Your task to perform on an android device: Search for bose quietcomfort 35 on target, select the first entry, add it to the cart, then select checkout. Image 0: 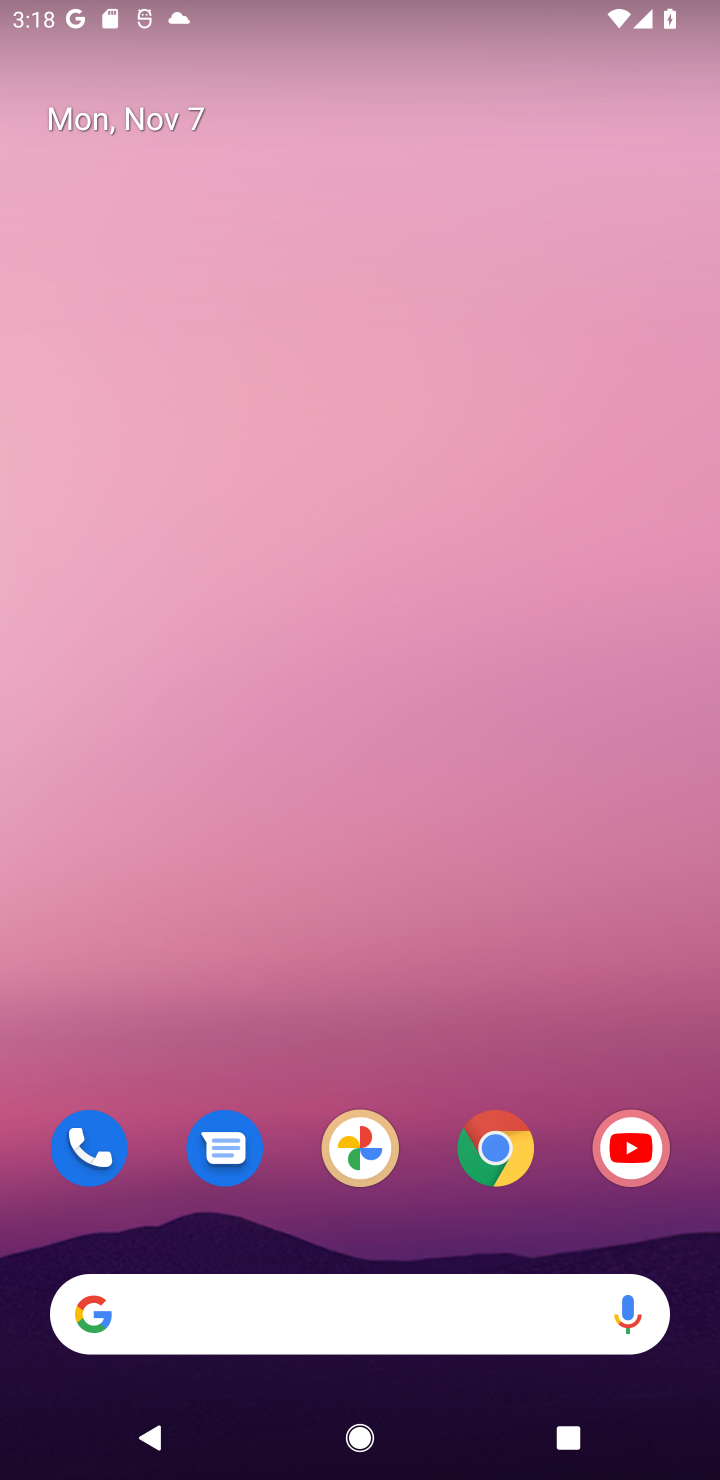
Step 0: drag from (528, 1206) to (489, 144)
Your task to perform on an android device: Search for bose quietcomfort 35 on target, select the first entry, add it to the cart, then select checkout. Image 1: 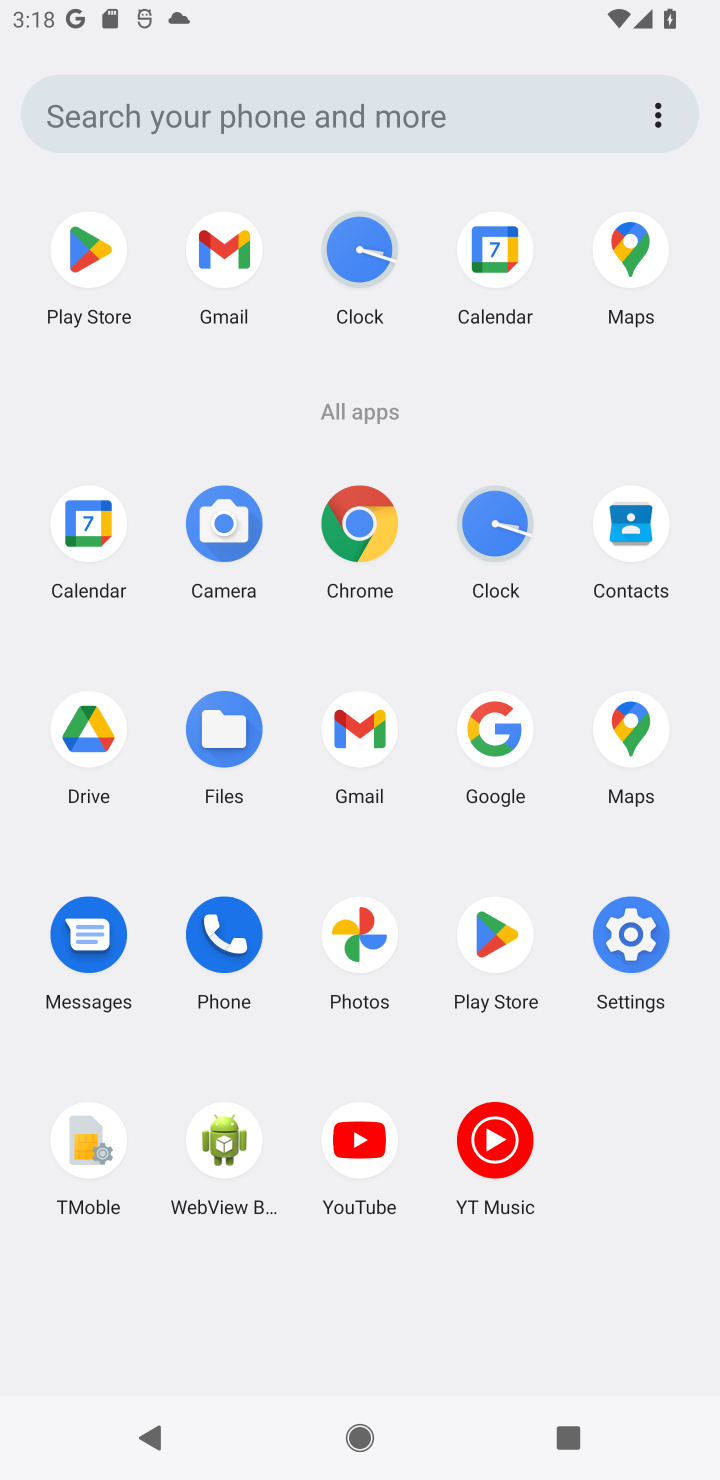
Step 1: click (375, 506)
Your task to perform on an android device: Search for bose quietcomfort 35 on target, select the first entry, add it to the cart, then select checkout. Image 2: 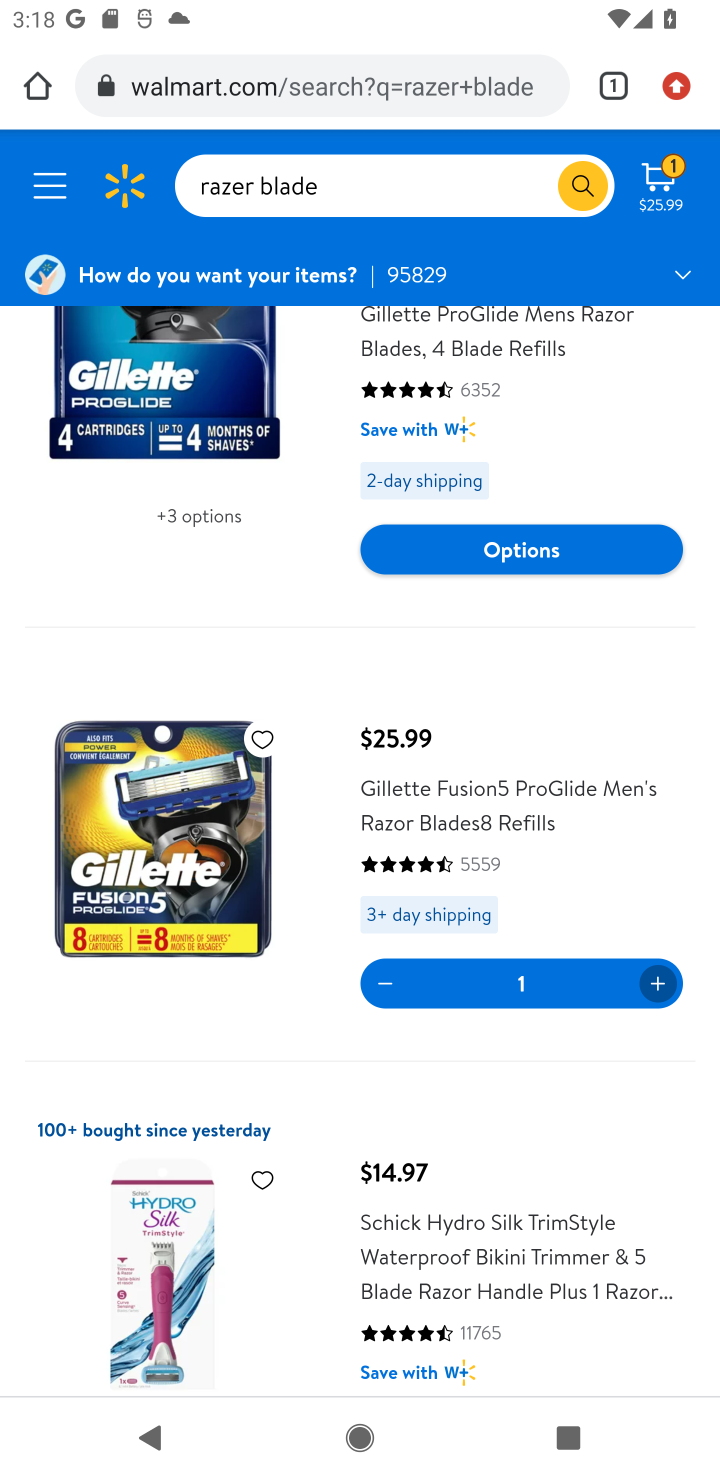
Step 2: click (339, 69)
Your task to perform on an android device: Search for bose quietcomfort 35 on target, select the first entry, add it to the cart, then select checkout. Image 3: 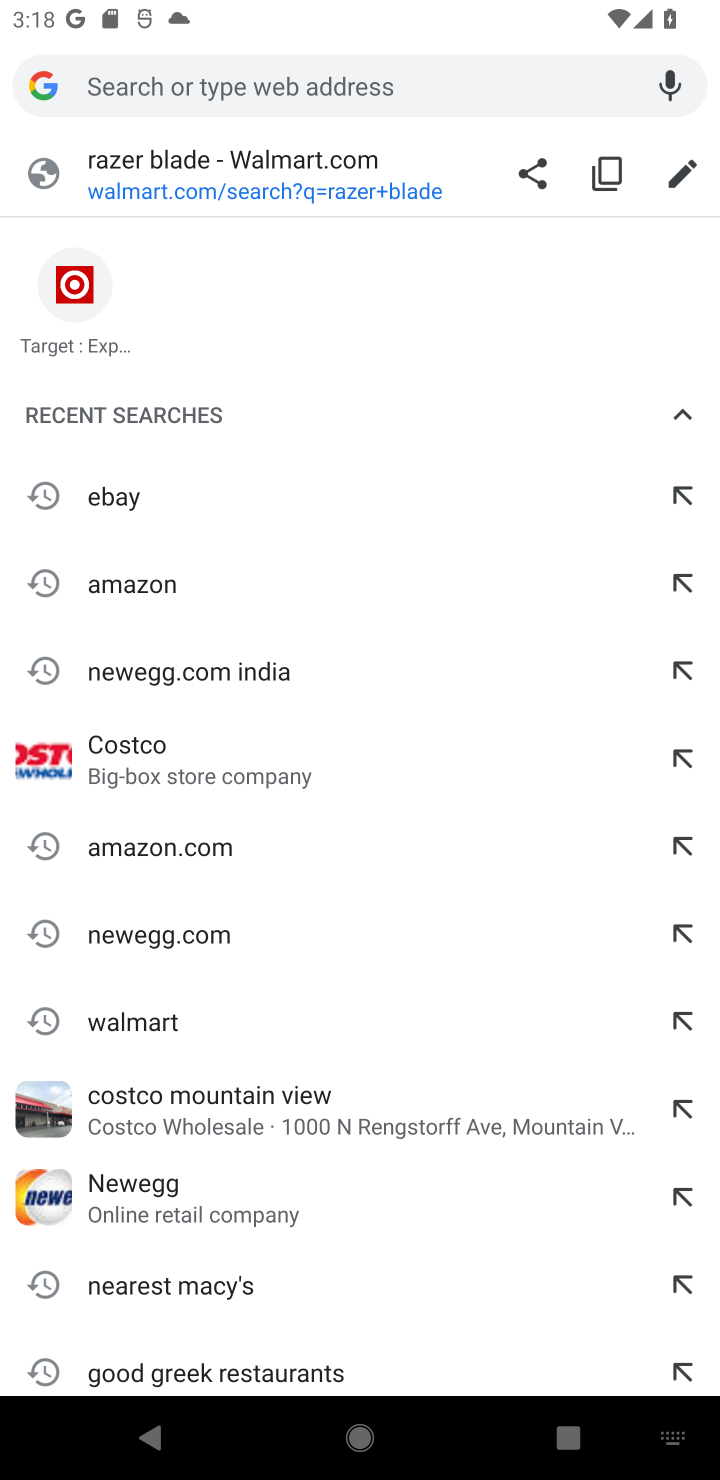
Step 3: type "target"
Your task to perform on an android device: Search for bose quietcomfort 35 on target, select the first entry, add it to the cart, then select checkout. Image 4: 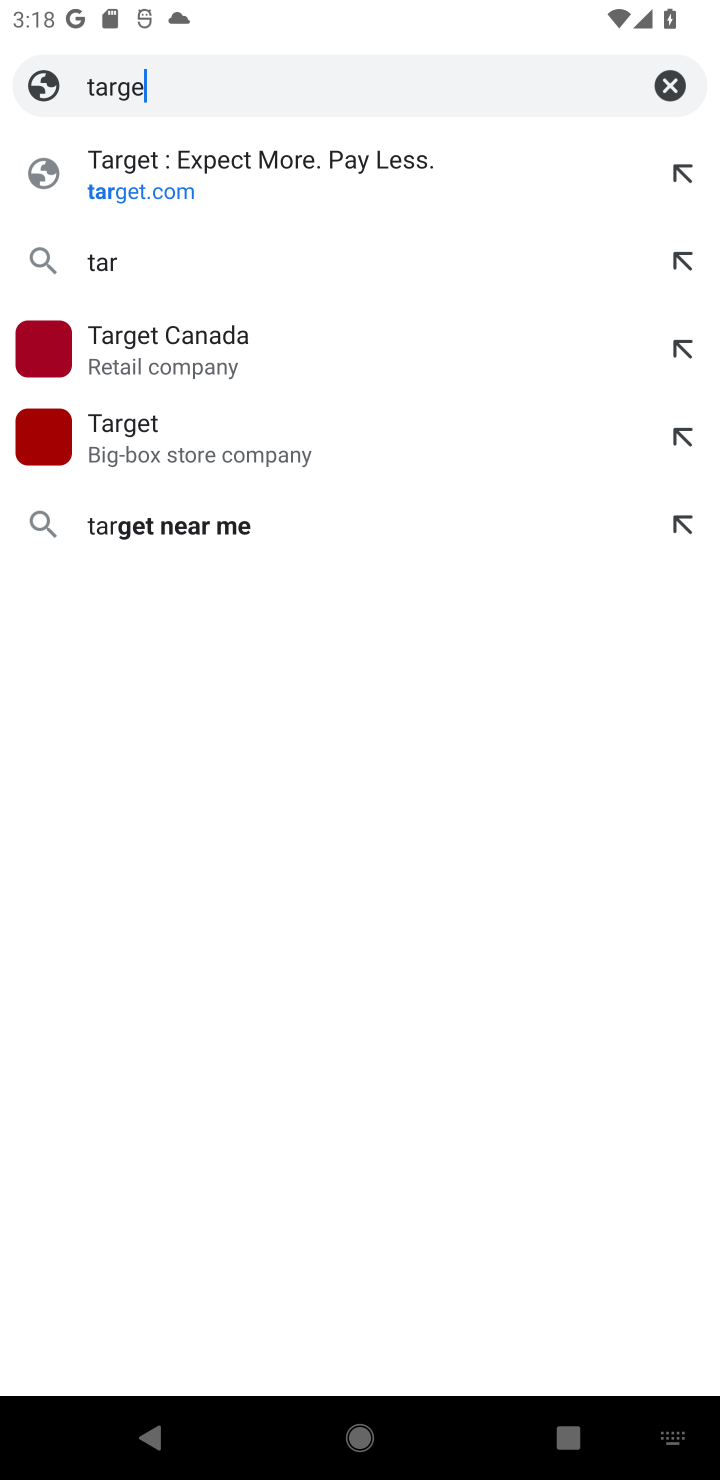
Step 4: press enter
Your task to perform on an android device: Search for bose quietcomfort 35 on target, select the first entry, add it to the cart, then select checkout. Image 5: 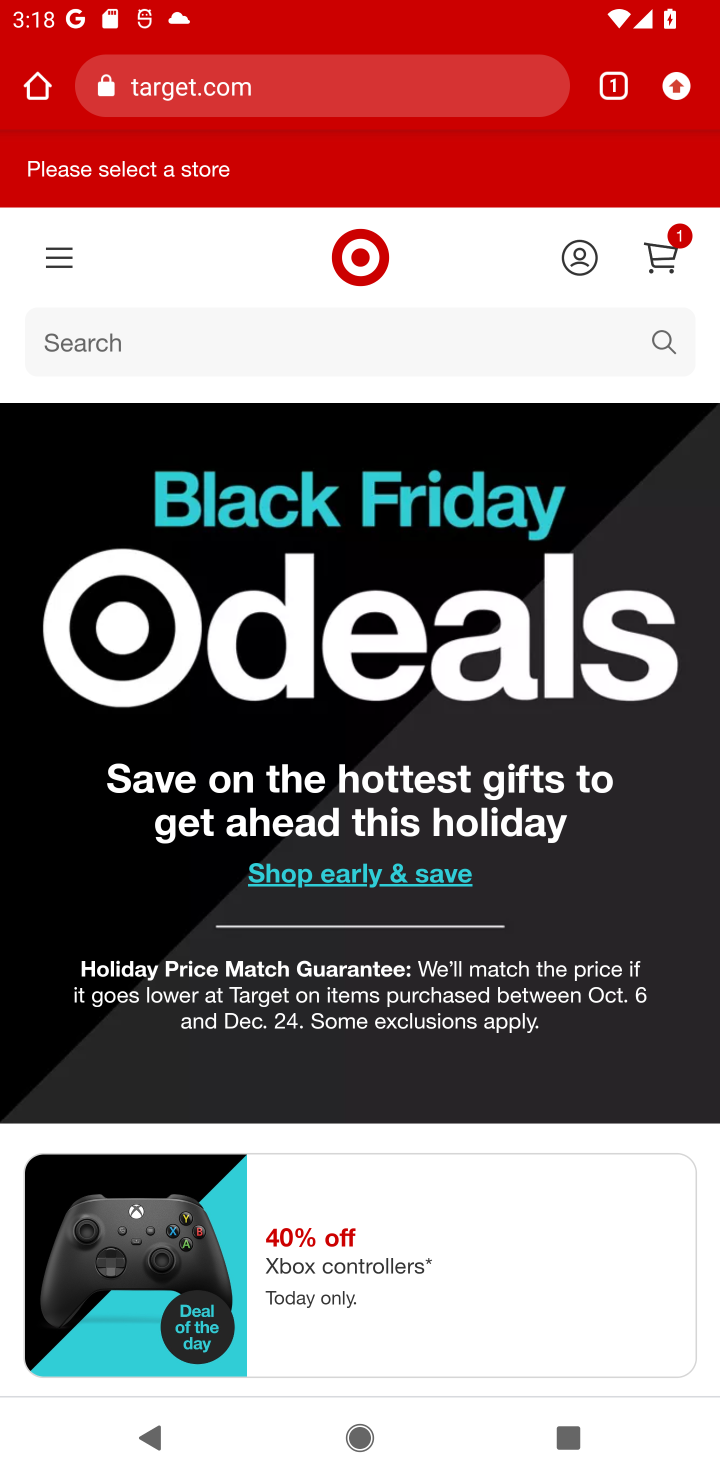
Step 5: click (195, 338)
Your task to perform on an android device: Search for bose quietcomfort 35 on target, select the first entry, add it to the cart, then select checkout. Image 6: 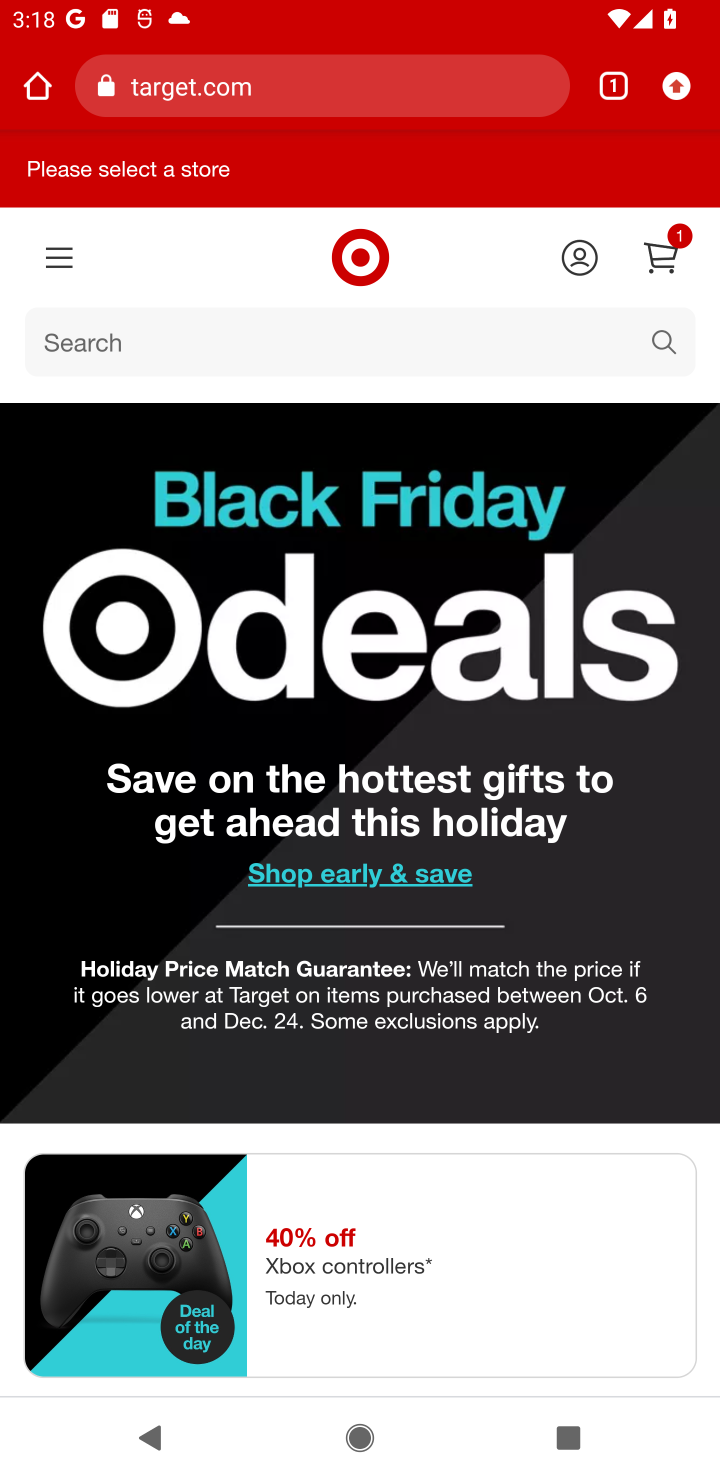
Step 6: click (219, 336)
Your task to perform on an android device: Search for bose quietcomfort 35 on target, select the first entry, add it to the cart, then select checkout. Image 7: 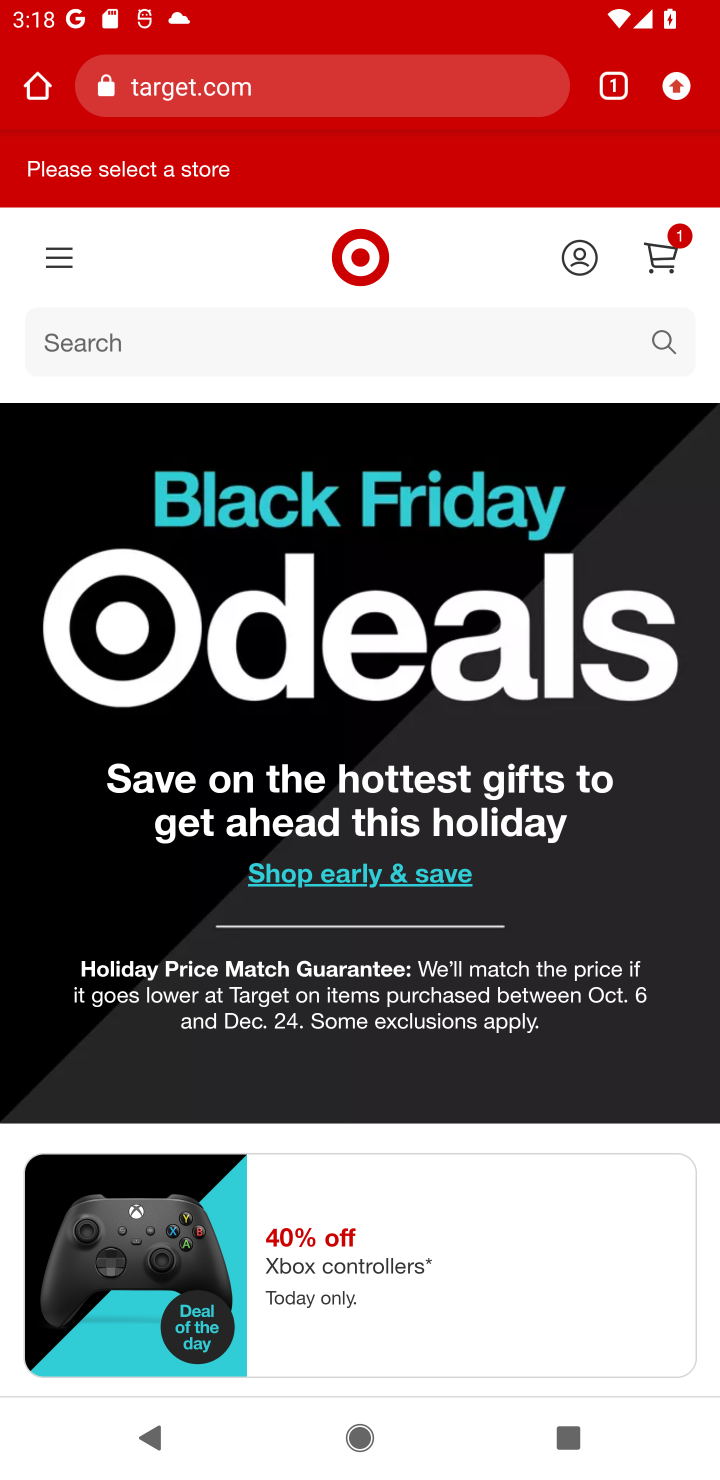
Step 7: click (454, 376)
Your task to perform on an android device: Search for bose quietcomfort 35 on target, select the first entry, add it to the cart, then select checkout. Image 8: 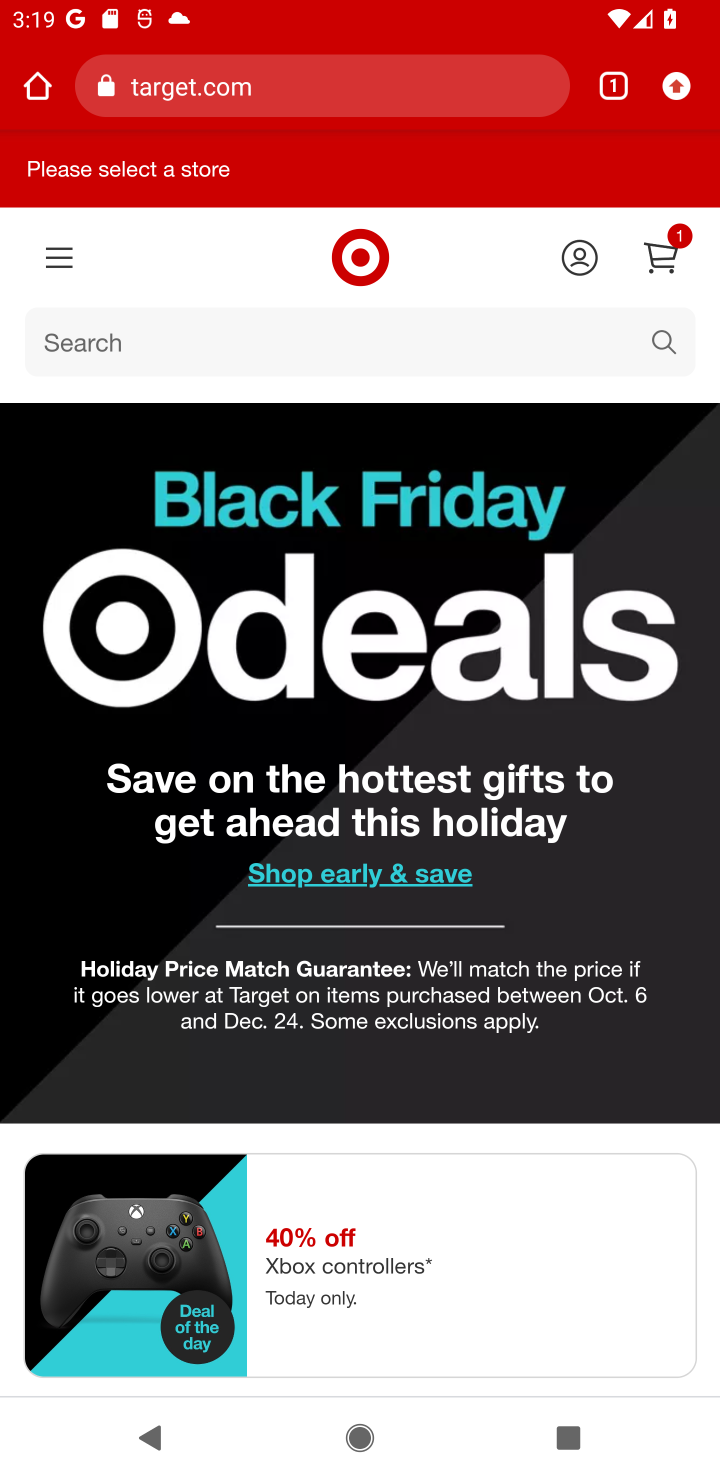
Step 8: click (654, 347)
Your task to perform on an android device: Search for bose quietcomfort 35 on target, select the first entry, add it to the cart, then select checkout. Image 9: 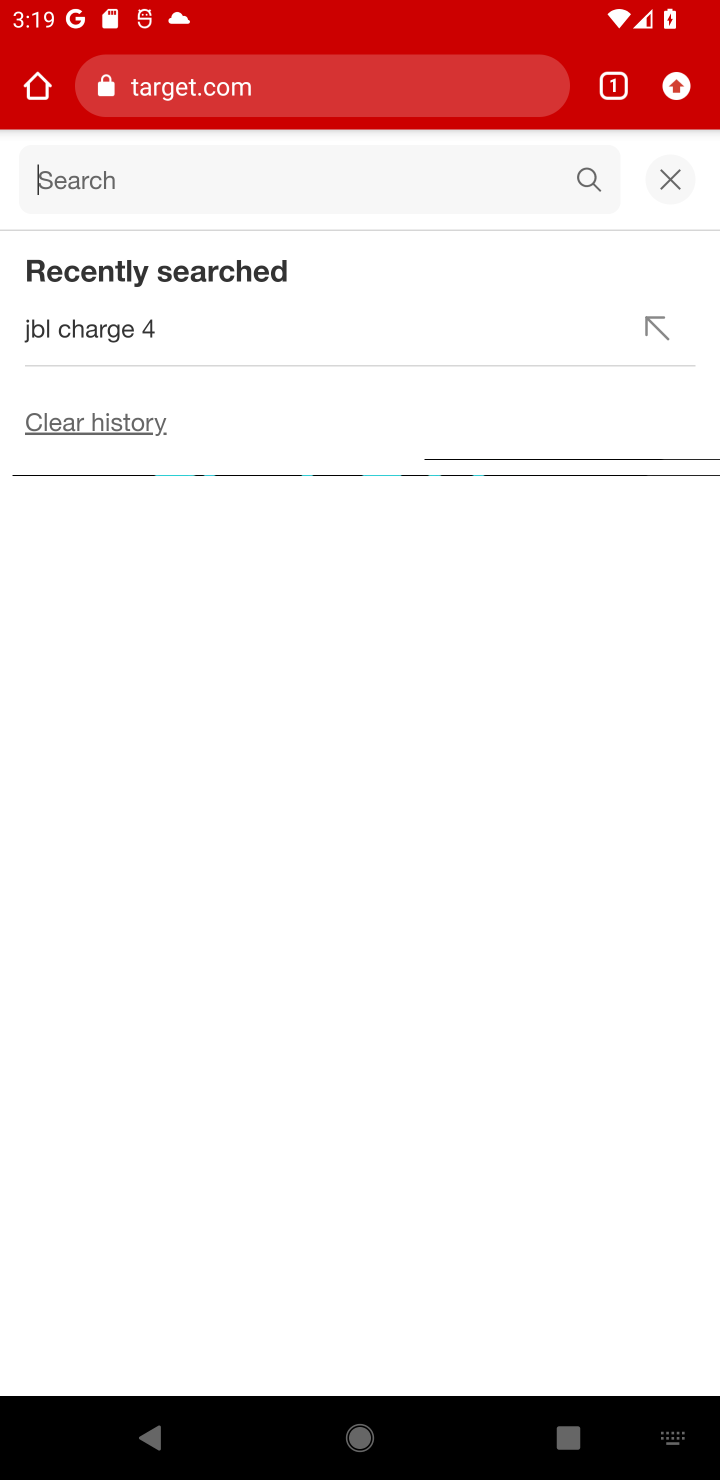
Step 9: type "bose quietcomfort 35"
Your task to perform on an android device: Search for bose quietcomfort 35 on target, select the first entry, add it to the cart, then select checkout. Image 10: 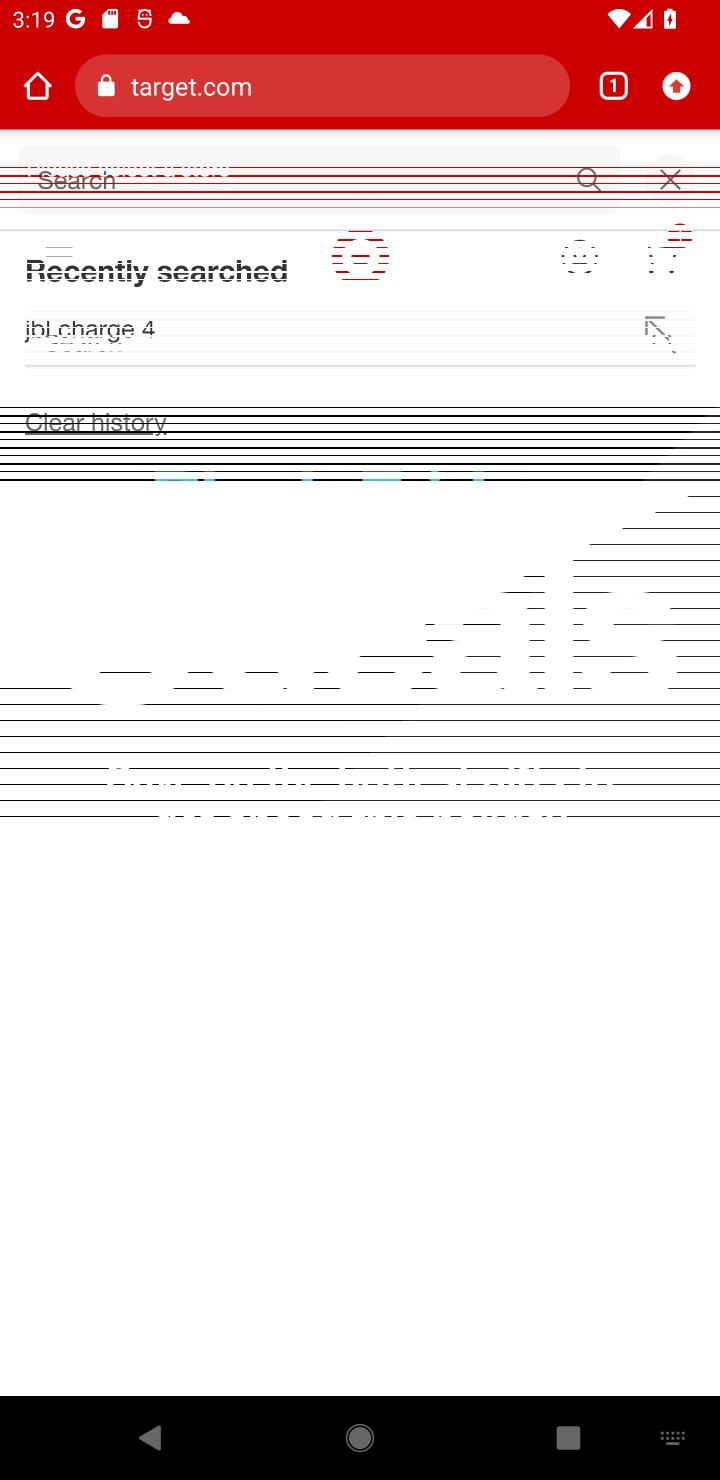
Step 10: press enter
Your task to perform on an android device: Search for bose quietcomfort 35 on target, select the first entry, add it to the cart, then select checkout. Image 11: 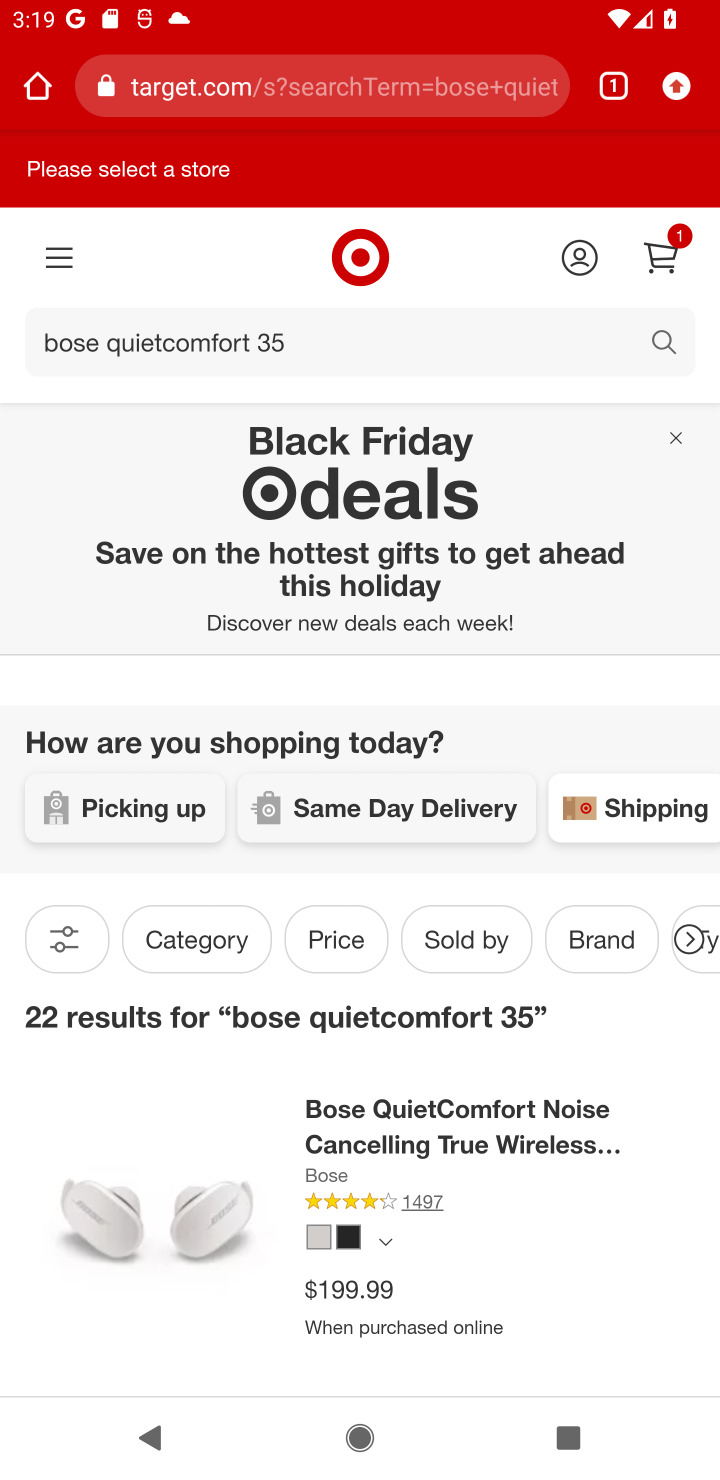
Step 11: drag from (452, 845) to (478, 624)
Your task to perform on an android device: Search for bose quietcomfort 35 on target, select the first entry, add it to the cart, then select checkout. Image 12: 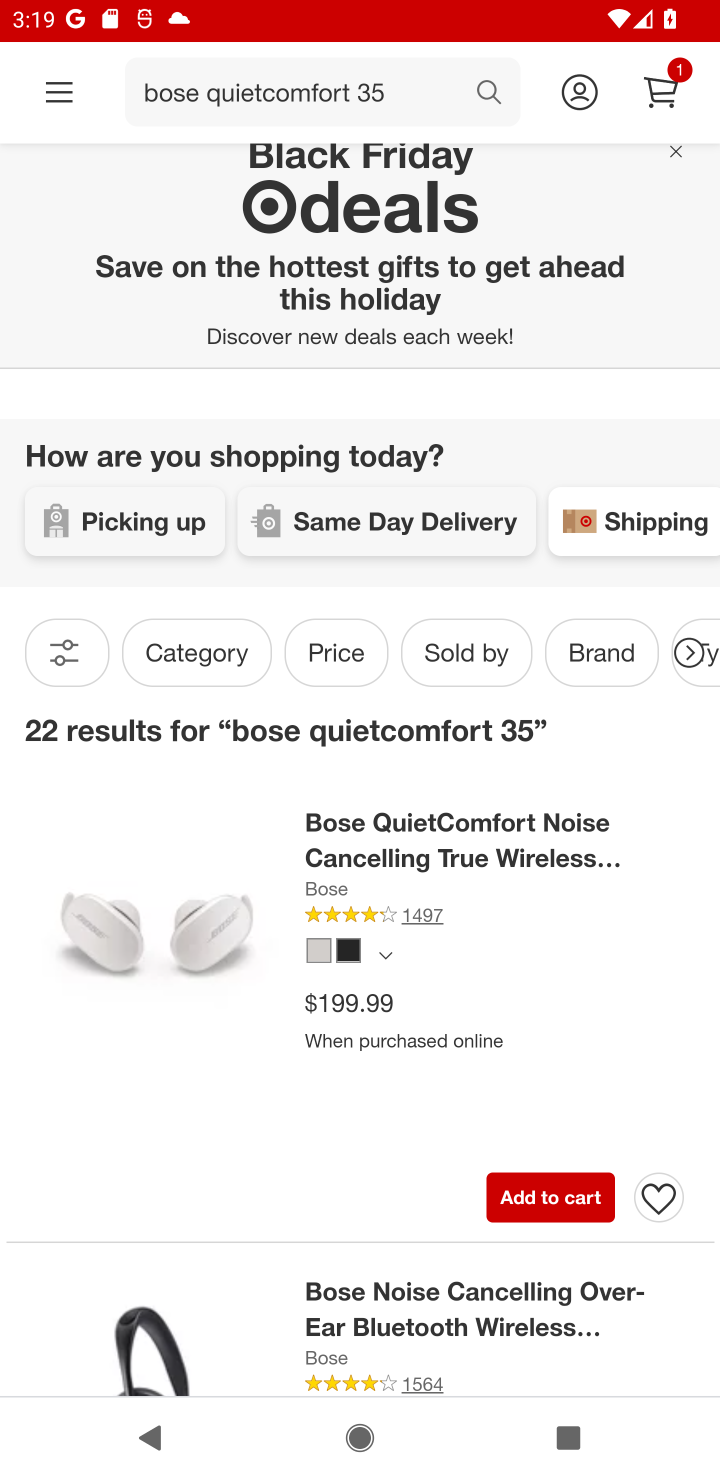
Step 12: click (541, 1198)
Your task to perform on an android device: Search for bose quietcomfort 35 on target, select the first entry, add it to the cart, then select checkout. Image 13: 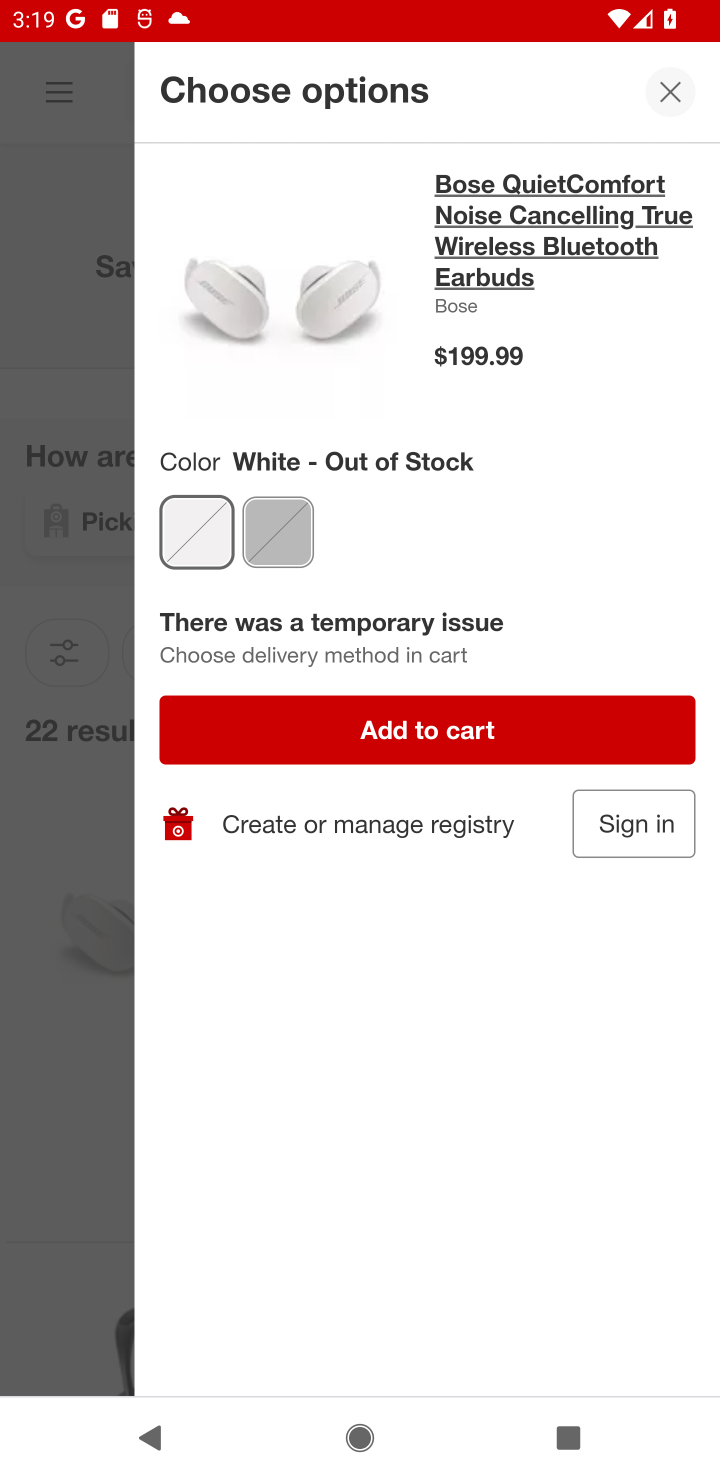
Step 13: click (404, 738)
Your task to perform on an android device: Search for bose quietcomfort 35 on target, select the first entry, add it to the cart, then select checkout. Image 14: 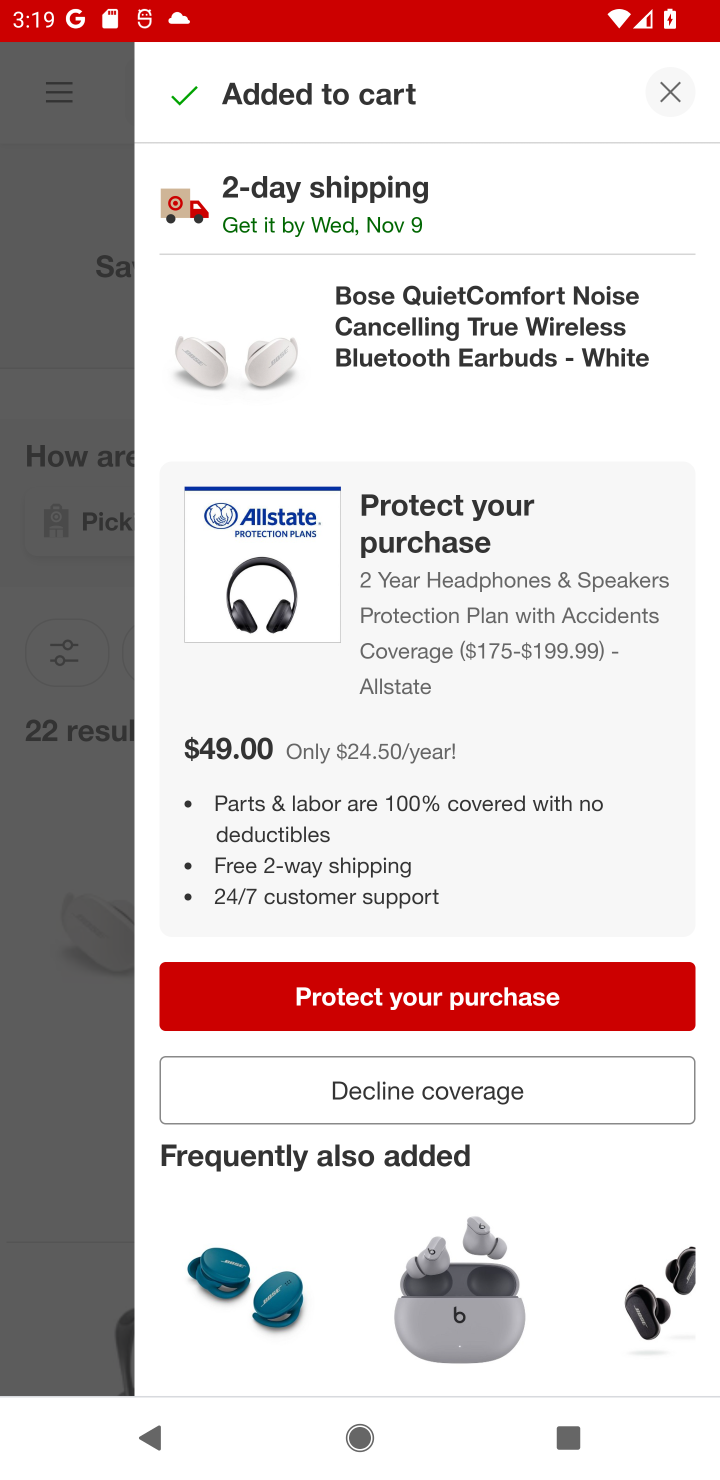
Step 14: drag from (532, 1119) to (509, 491)
Your task to perform on an android device: Search for bose quietcomfort 35 on target, select the first entry, add it to the cart, then select checkout. Image 15: 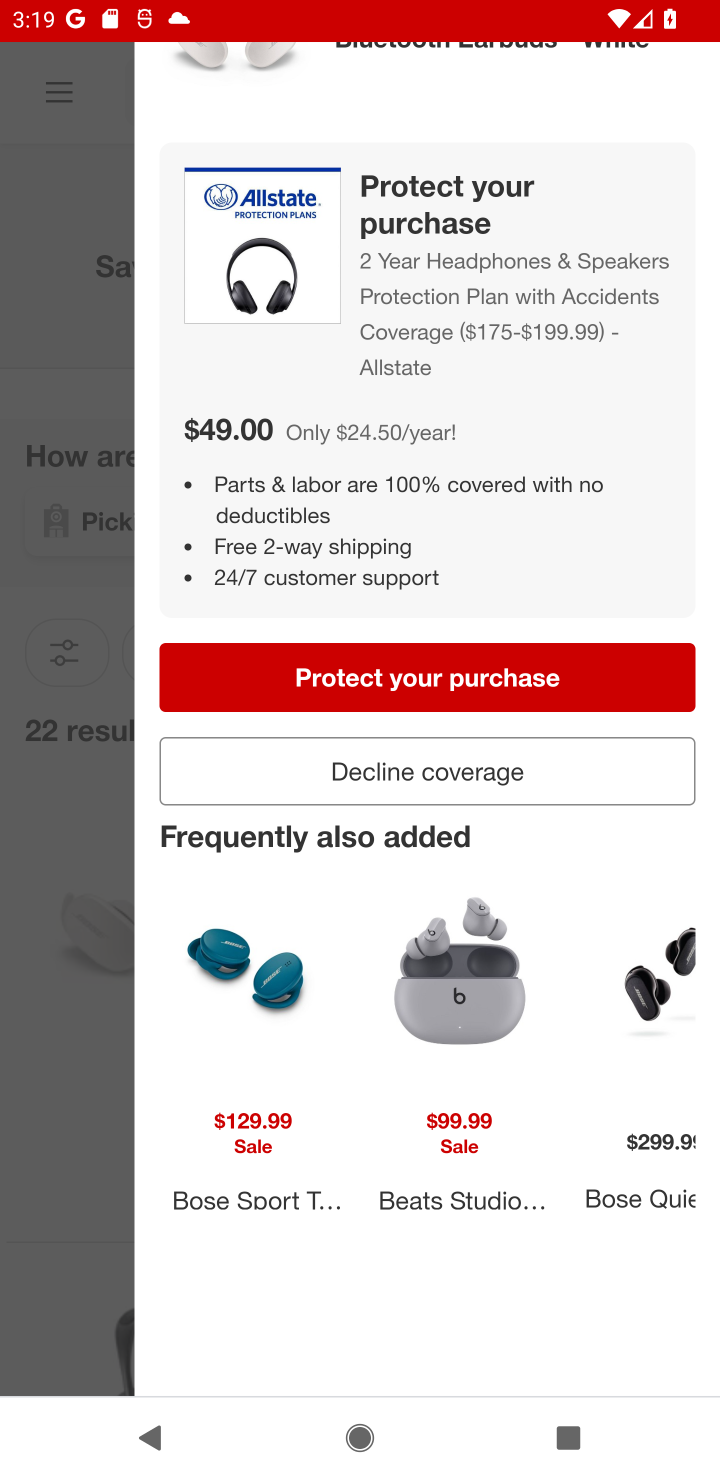
Step 15: drag from (456, 1238) to (555, 422)
Your task to perform on an android device: Search for bose quietcomfort 35 on target, select the first entry, add it to the cart, then select checkout. Image 16: 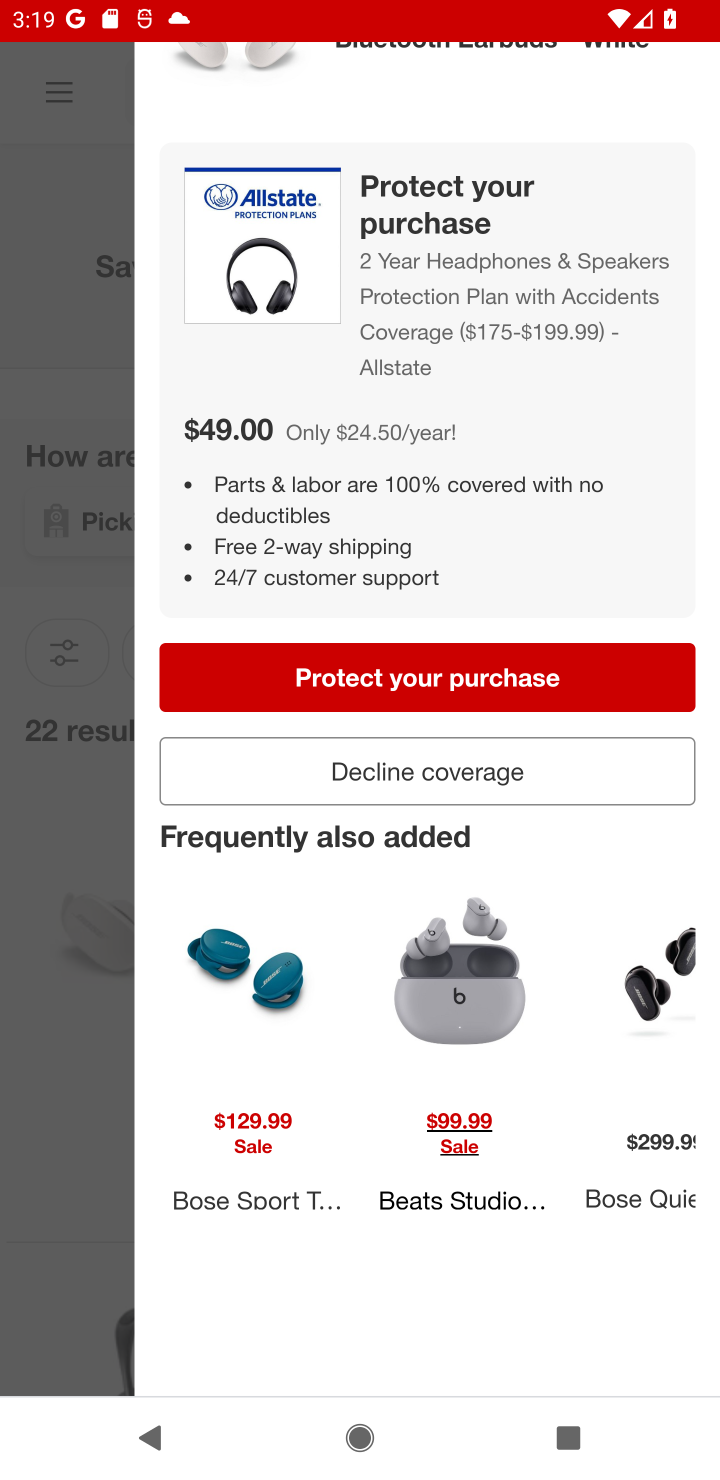
Step 16: drag from (557, 435) to (529, 1159)
Your task to perform on an android device: Search for bose quietcomfort 35 on target, select the first entry, add it to the cart, then select checkout. Image 17: 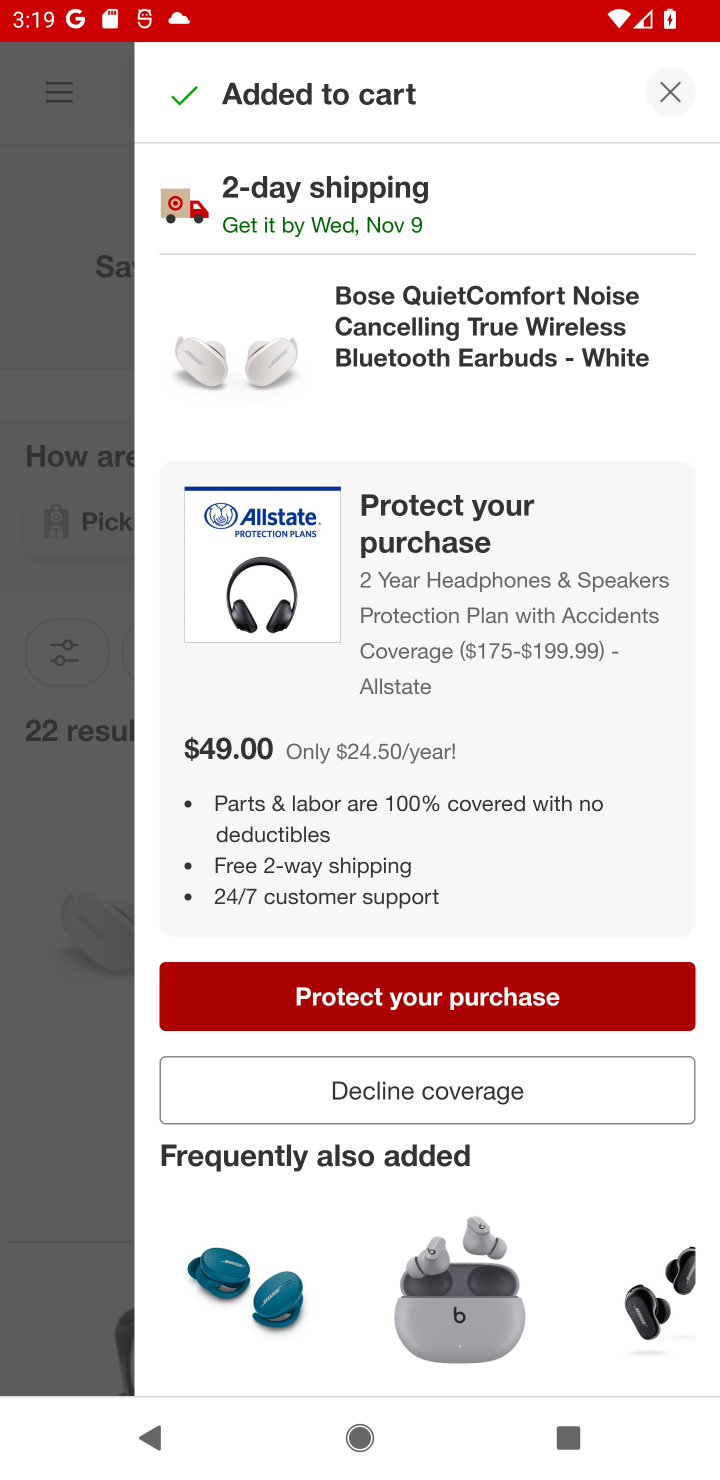
Step 17: click (492, 381)
Your task to perform on an android device: Search for bose quietcomfort 35 on target, select the first entry, add it to the cart, then select checkout. Image 18: 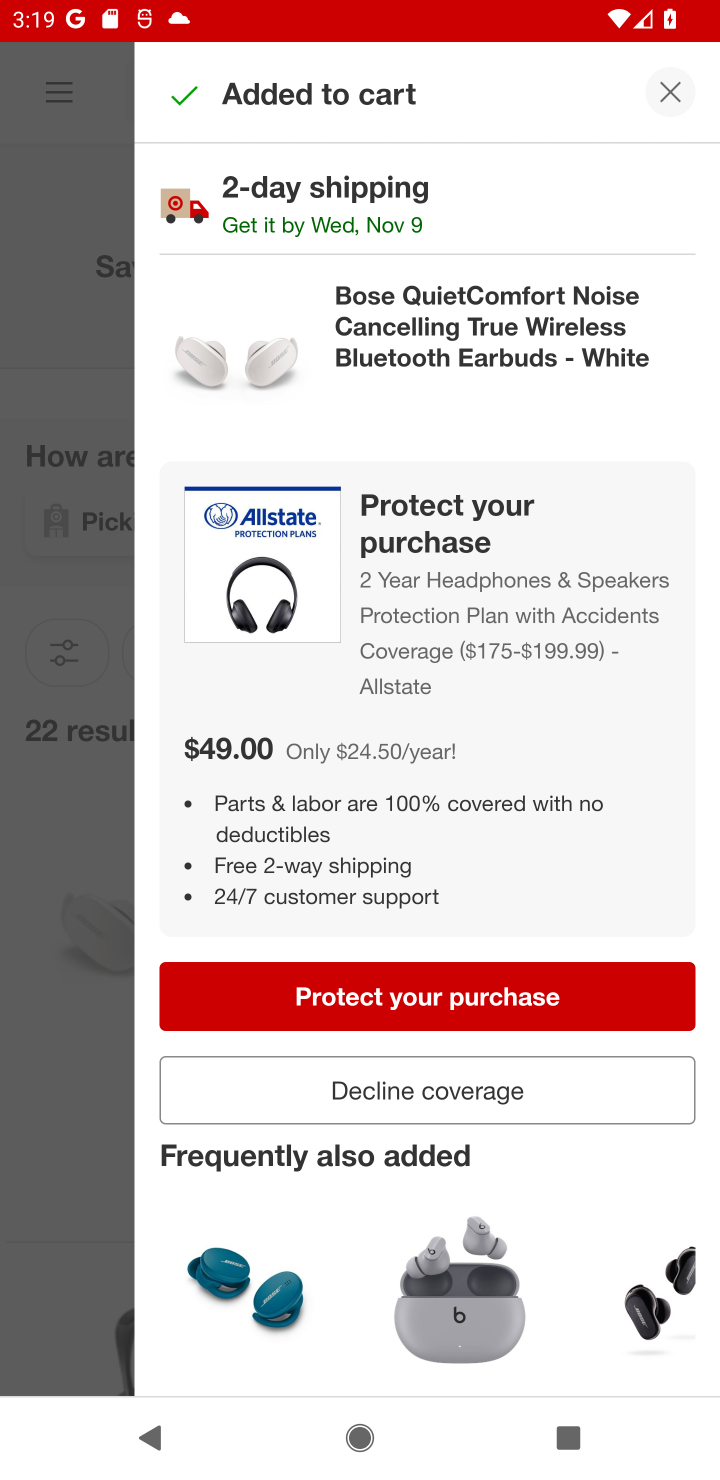
Step 18: click (483, 338)
Your task to perform on an android device: Search for bose quietcomfort 35 on target, select the first entry, add it to the cart, then select checkout. Image 19: 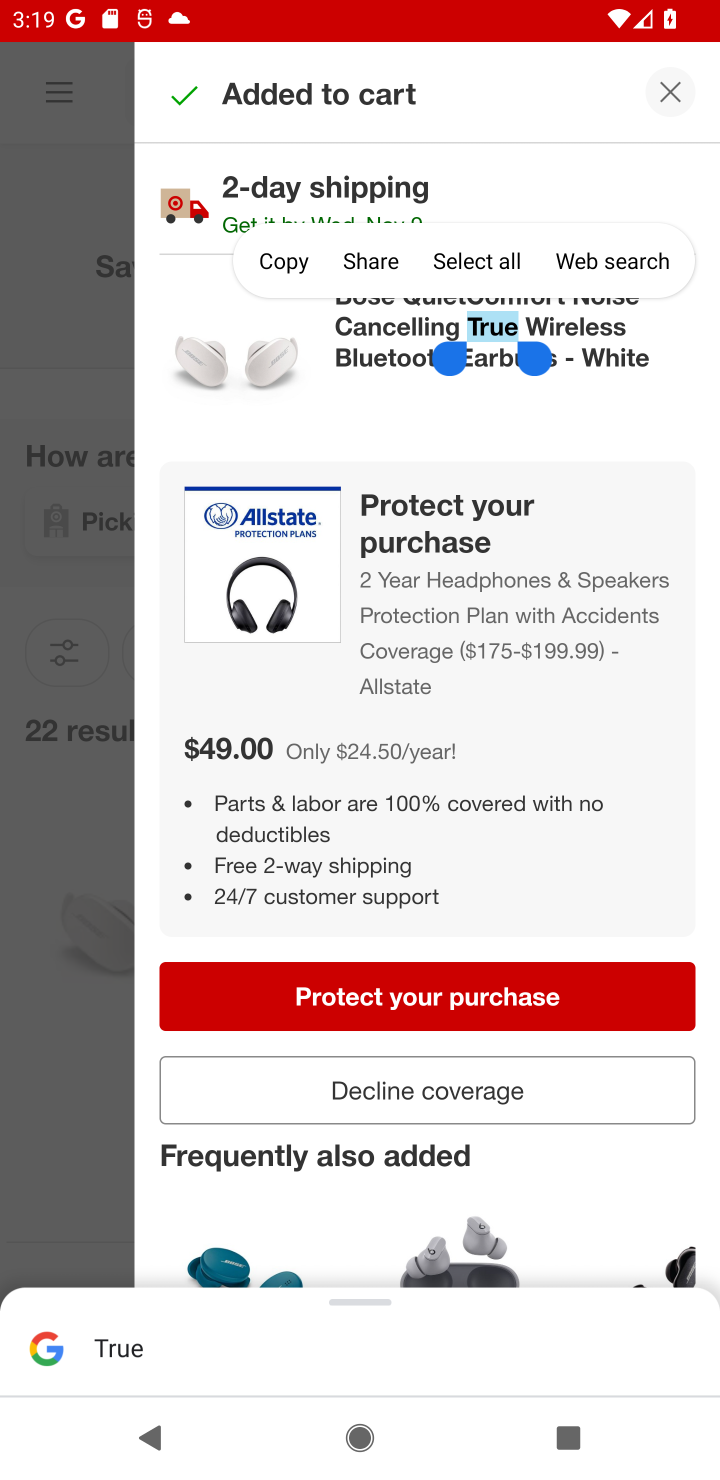
Step 19: click (680, 108)
Your task to perform on an android device: Search for bose quietcomfort 35 on target, select the first entry, add it to the cart, then select checkout. Image 20: 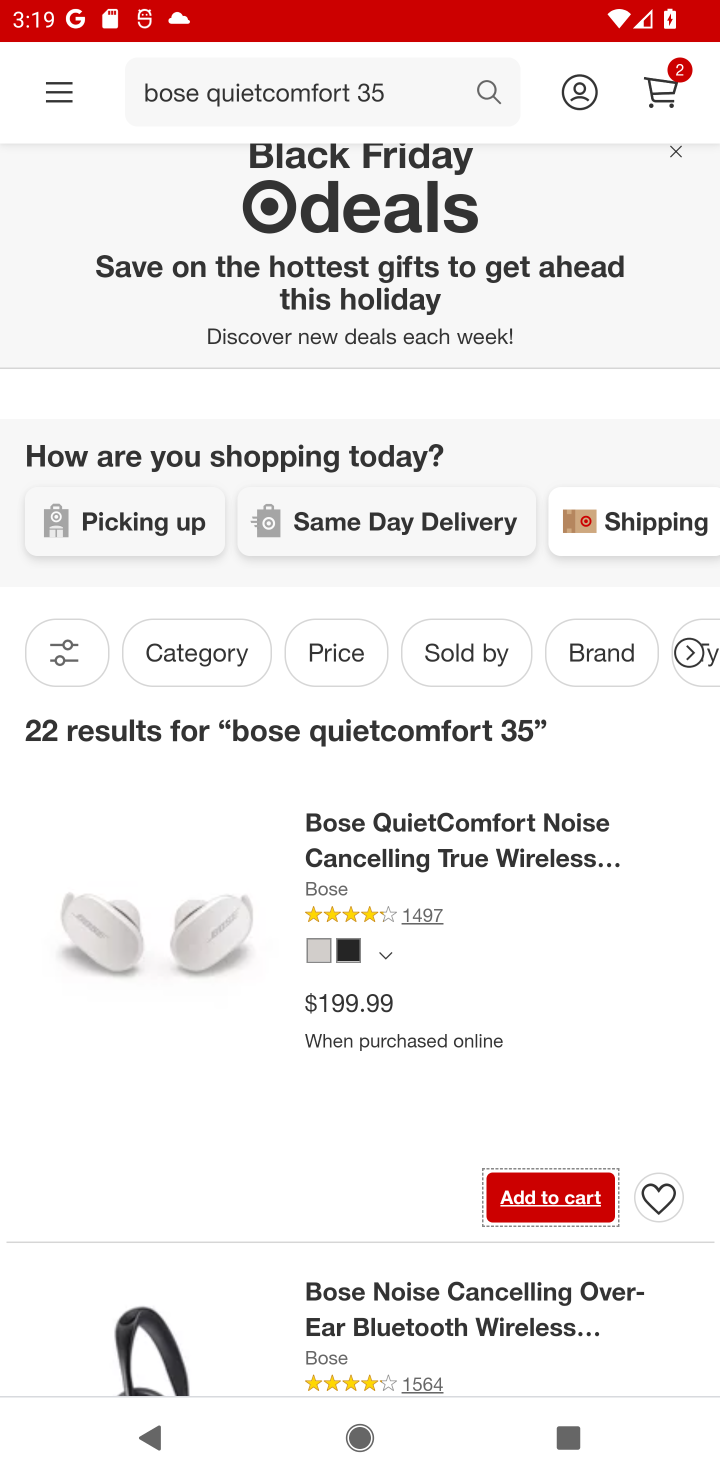
Step 20: click (659, 108)
Your task to perform on an android device: Search for bose quietcomfort 35 on target, select the first entry, add it to the cart, then select checkout. Image 21: 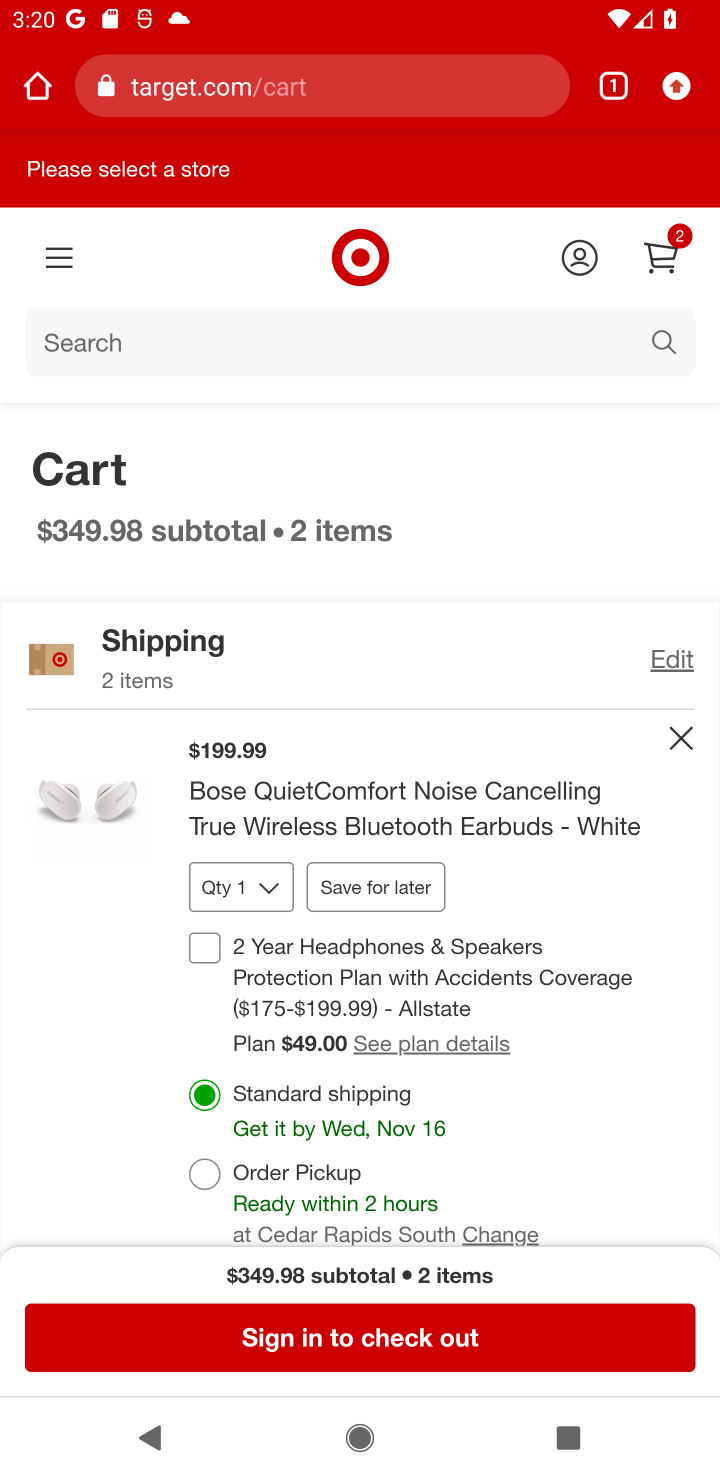
Step 21: task complete